Your task to perform on an android device: Show the shopping cart on newegg.com. Search for "asus rog" on newegg.com, select the first entry, add it to the cart, then select checkout. Image 0: 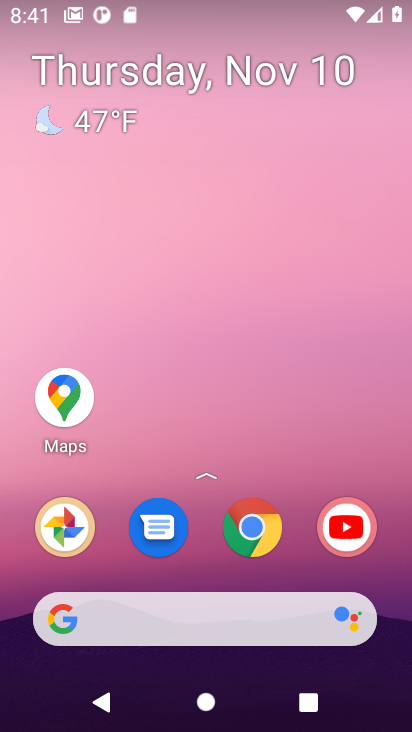
Step 0: drag from (145, 631) to (187, 147)
Your task to perform on an android device: Show the shopping cart on newegg.com. Search for "asus rog" on newegg.com, select the first entry, add it to the cart, then select checkout. Image 1: 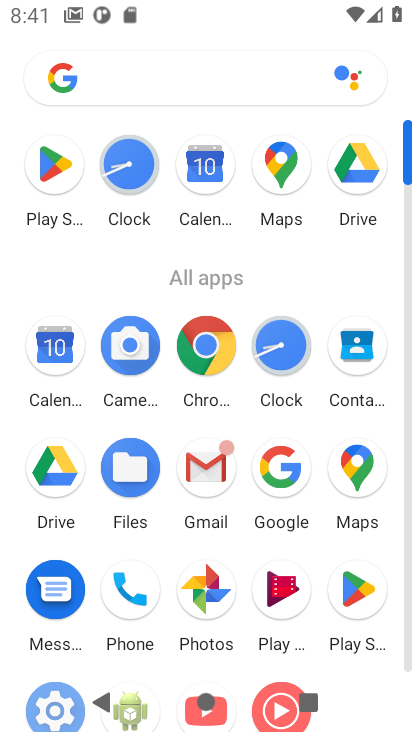
Step 1: click (212, 369)
Your task to perform on an android device: Show the shopping cart on newegg.com. Search for "asus rog" on newegg.com, select the first entry, add it to the cart, then select checkout. Image 2: 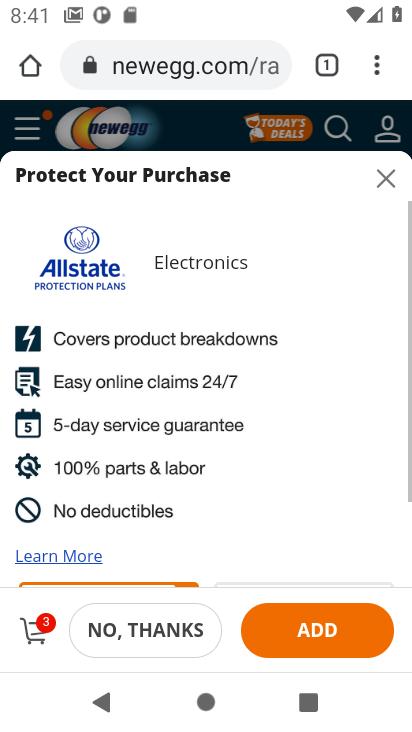
Step 2: press back button
Your task to perform on an android device: Show the shopping cart on newegg.com. Search for "asus rog" on newegg.com, select the first entry, add it to the cart, then select checkout. Image 3: 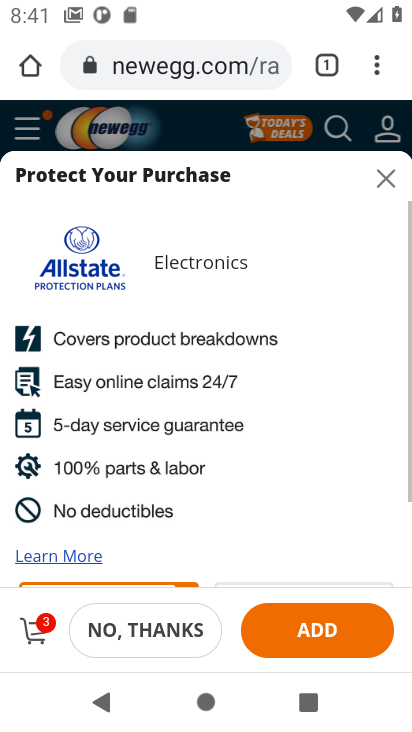
Step 3: click (35, 621)
Your task to perform on an android device: Show the shopping cart on newegg.com. Search for "asus rog" on newegg.com, select the first entry, add it to the cart, then select checkout. Image 4: 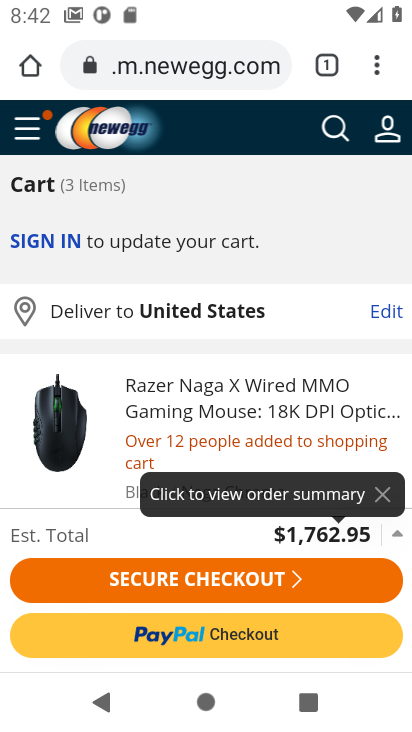
Step 4: click (339, 122)
Your task to perform on an android device: Show the shopping cart on newegg.com. Search for "asus rog" on newegg.com, select the first entry, add it to the cart, then select checkout. Image 5: 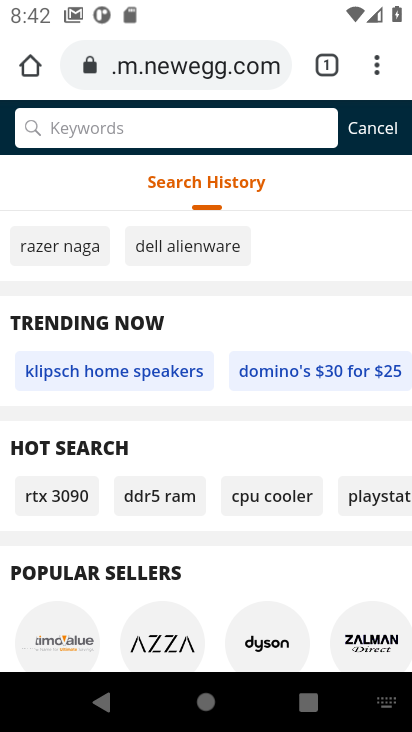
Step 5: type "asus rog"
Your task to perform on an android device: Show the shopping cart on newegg.com. Search for "asus rog" on newegg.com, select the first entry, add it to the cart, then select checkout. Image 6: 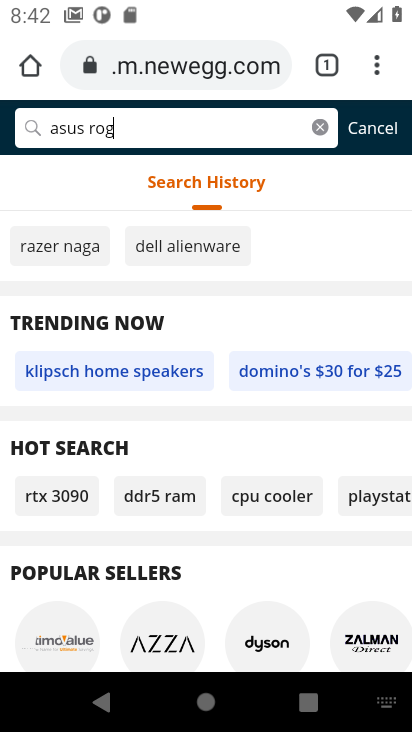
Step 6: press enter
Your task to perform on an android device: Show the shopping cart on newegg.com. Search for "asus rog" on newegg.com, select the first entry, add it to the cart, then select checkout. Image 7: 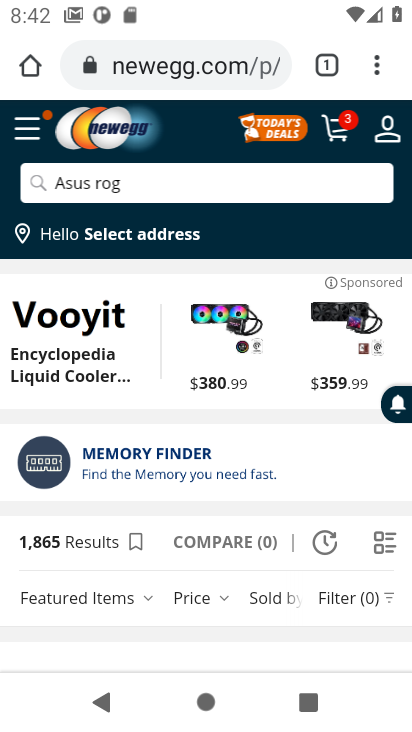
Step 7: drag from (116, 590) to (143, 216)
Your task to perform on an android device: Show the shopping cart on newegg.com. Search for "asus rog" on newegg.com, select the first entry, add it to the cart, then select checkout. Image 8: 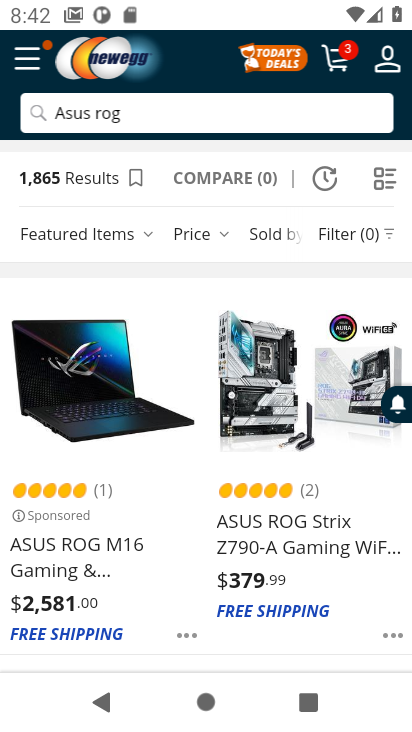
Step 8: click (56, 561)
Your task to perform on an android device: Show the shopping cart on newegg.com. Search for "asus rog" on newegg.com, select the first entry, add it to the cart, then select checkout. Image 9: 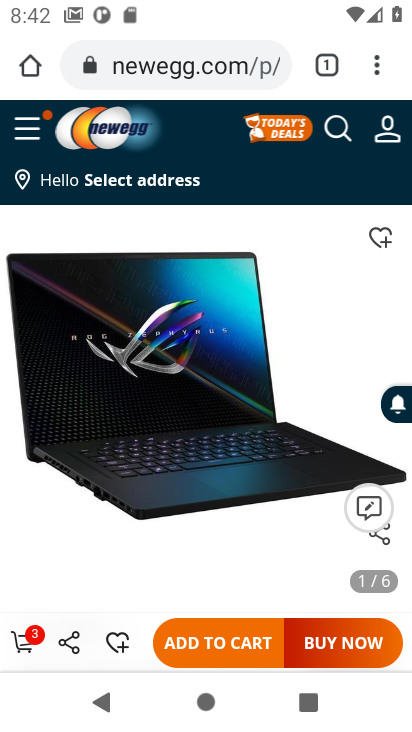
Step 9: click (211, 636)
Your task to perform on an android device: Show the shopping cart on newegg.com. Search for "asus rog" on newegg.com, select the first entry, add it to the cart, then select checkout. Image 10: 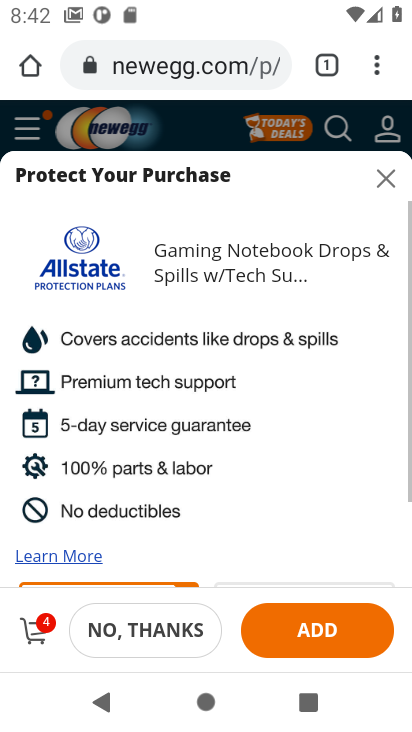
Step 10: click (28, 636)
Your task to perform on an android device: Show the shopping cart on newegg.com. Search for "asus rog" on newegg.com, select the first entry, add it to the cart, then select checkout. Image 11: 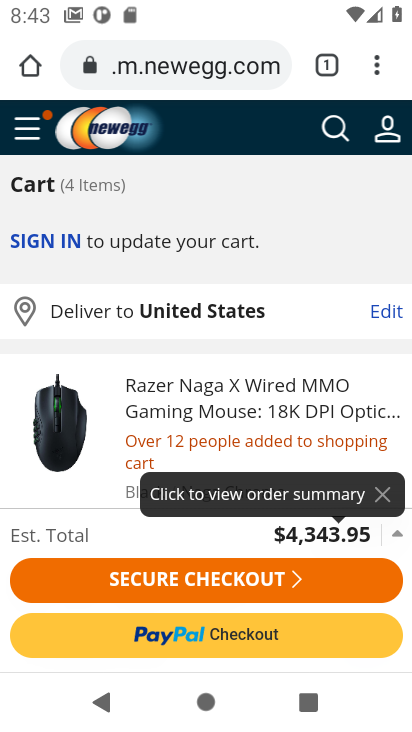
Step 11: click (106, 573)
Your task to perform on an android device: Show the shopping cart on newegg.com. Search for "asus rog" on newegg.com, select the first entry, add it to the cart, then select checkout. Image 12: 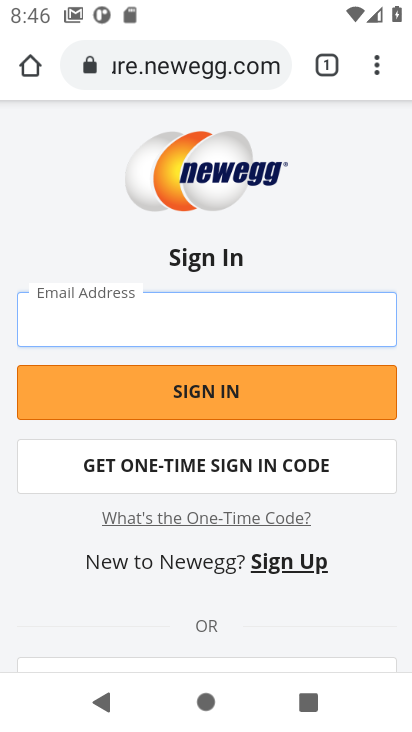
Step 12: task complete